Your task to perform on an android device: turn off javascript in the chrome app Image 0: 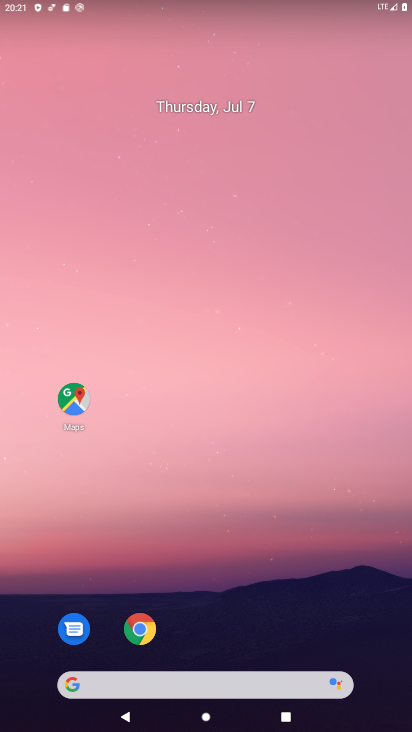
Step 0: drag from (276, 667) to (238, 22)
Your task to perform on an android device: turn off javascript in the chrome app Image 1: 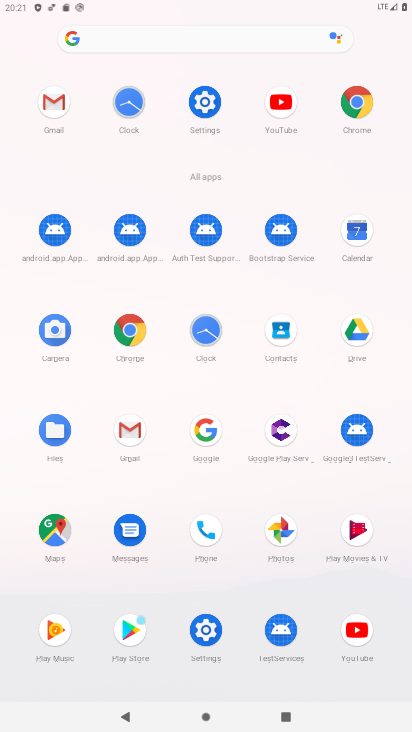
Step 1: click (139, 331)
Your task to perform on an android device: turn off javascript in the chrome app Image 2: 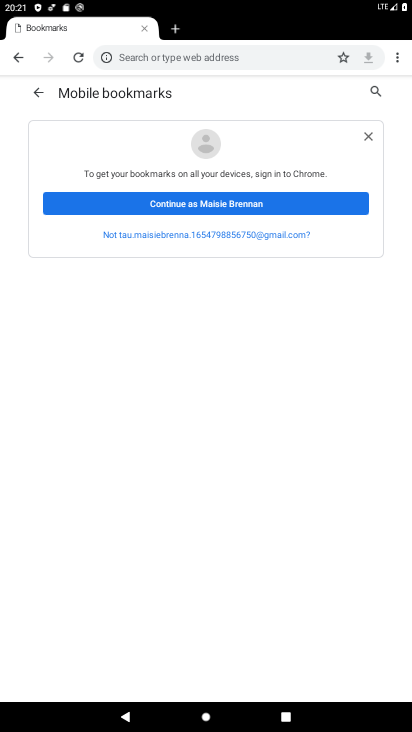
Step 2: click (397, 53)
Your task to perform on an android device: turn off javascript in the chrome app Image 3: 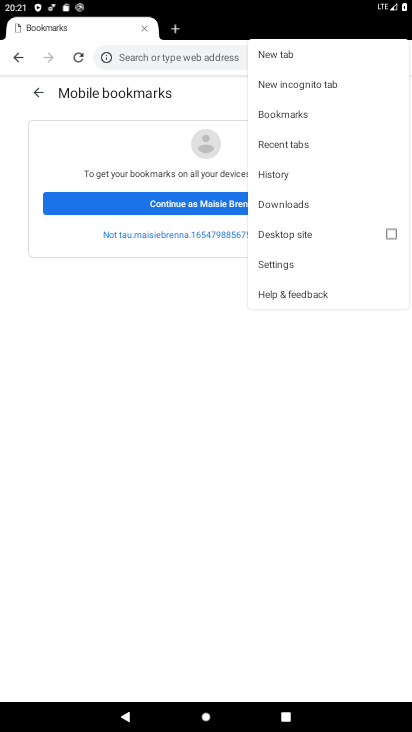
Step 3: click (276, 267)
Your task to perform on an android device: turn off javascript in the chrome app Image 4: 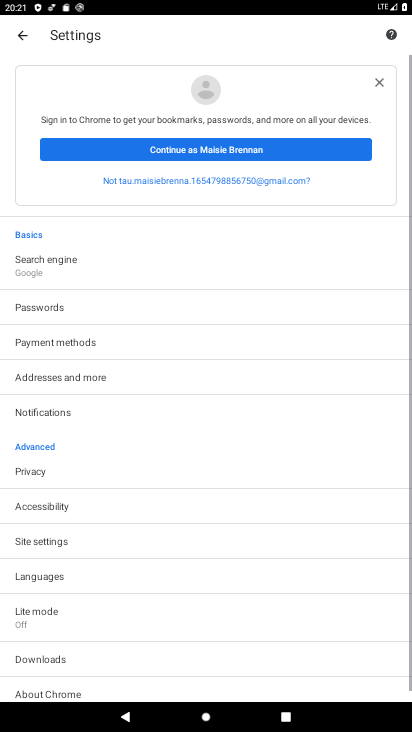
Step 4: drag from (250, 530) to (230, 250)
Your task to perform on an android device: turn off javascript in the chrome app Image 5: 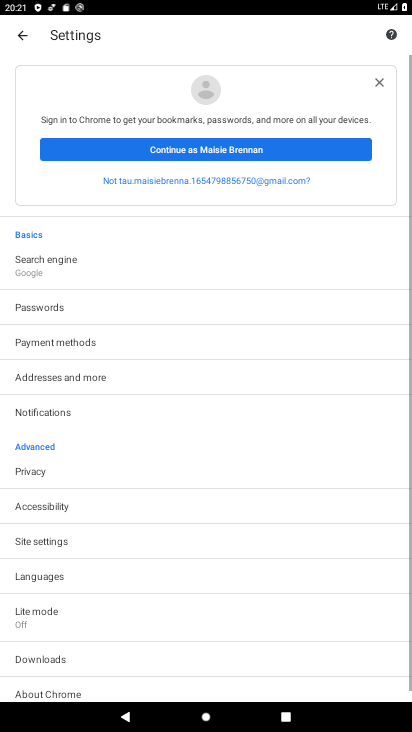
Step 5: click (61, 536)
Your task to perform on an android device: turn off javascript in the chrome app Image 6: 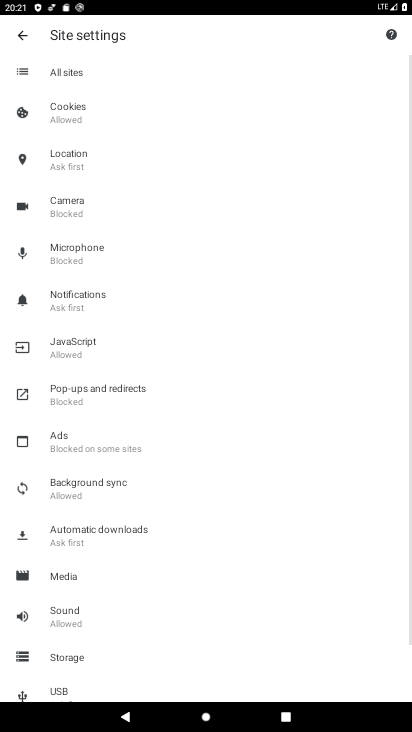
Step 6: click (95, 344)
Your task to perform on an android device: turn off javascript in the chrome app Image 7: 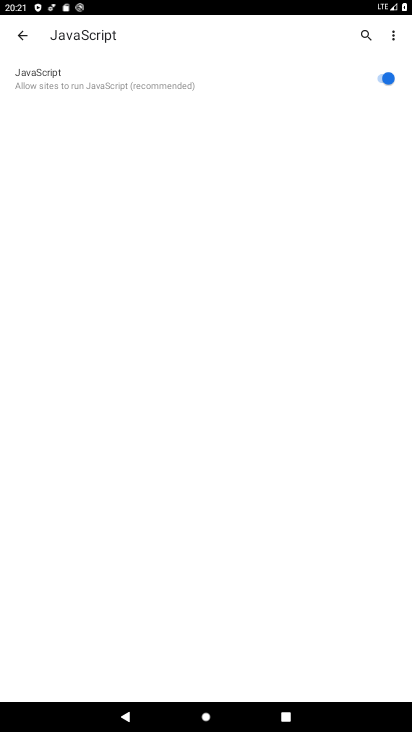
Step 7: click (381, 80)
Your task to perform on an android device: turn off javascript in the chrome app Image 8: 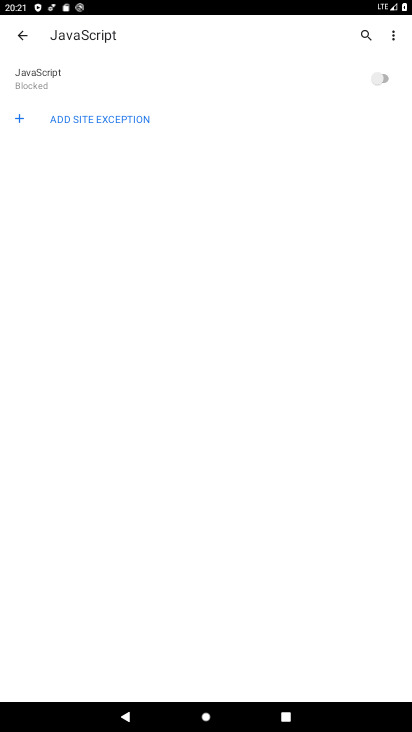
Step 8: task complete